Your task to perform on an android device: Open Wikipedia Image 0: 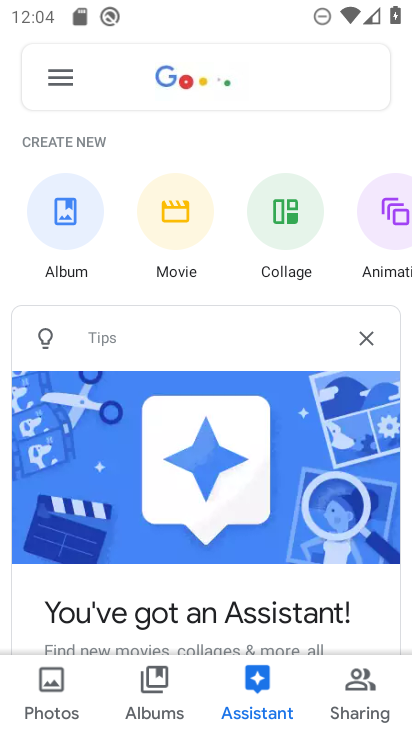
Step 0: press home button
Your task to perform on an android device: Open Wikipedia Image 1: 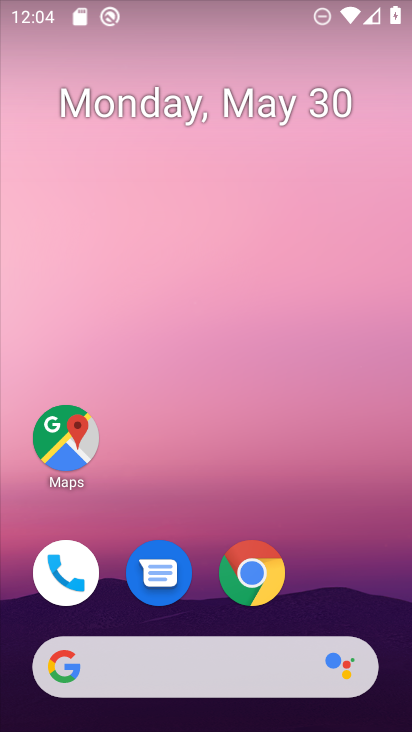
Step 1: click (166, 651)
Your task to perform on an android device: Open Wikipedia Image 2: 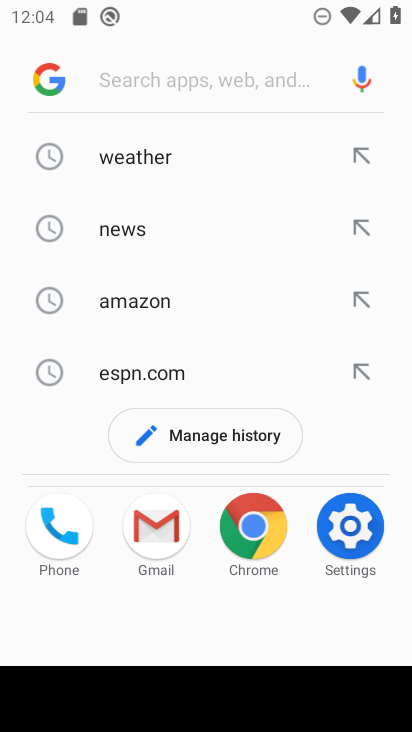
Step 2: type "Wikipedia"
Your task to perform on an android device: Open Wikipedia Image 3: 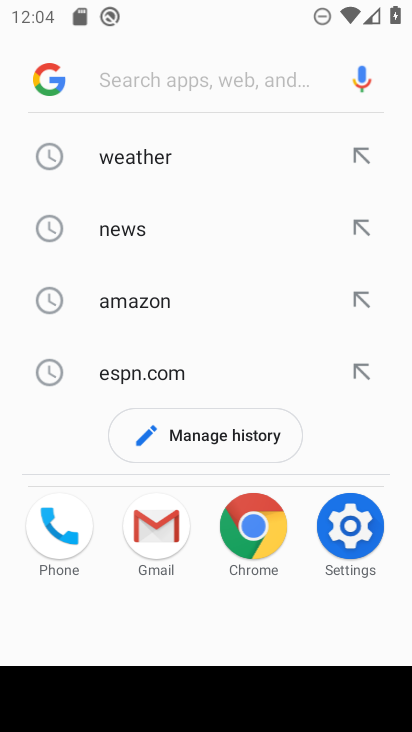
Step 3: click (169, 75)
Your task to perform on an android device: Open Wikipedia Image 4: 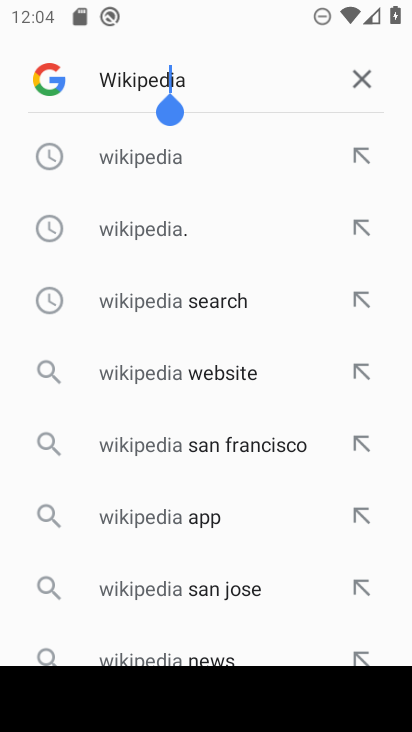
Step 4: click (133, 156)
Your task to perform on an android device: Open Wikipedia Image 5: 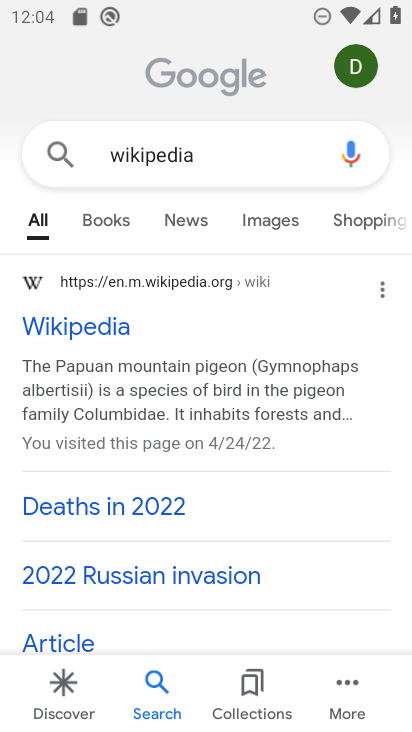
Step 5: click (64, 330)
Your task to perform on an android device: Open Wikipedia Image 6: 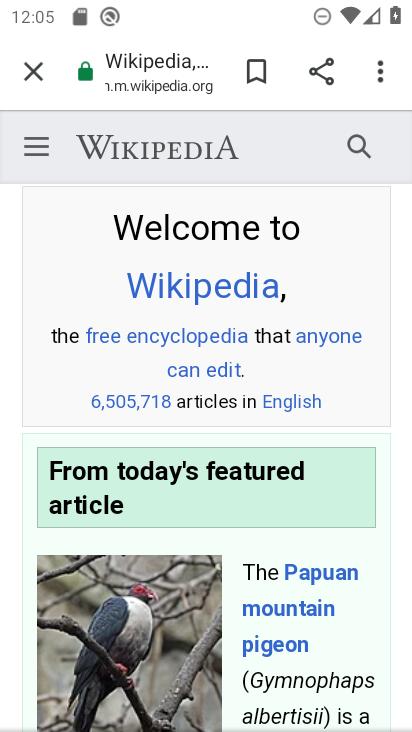
Step 6: task complete